Your task to perform on an android device: Open accessibility settings Image 0: 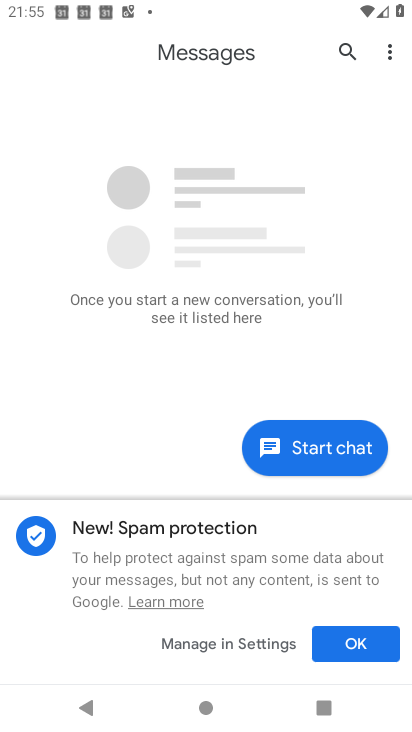
Step 0: press home button
Your task to perform on an android device: Open accessibility settings Image 1: 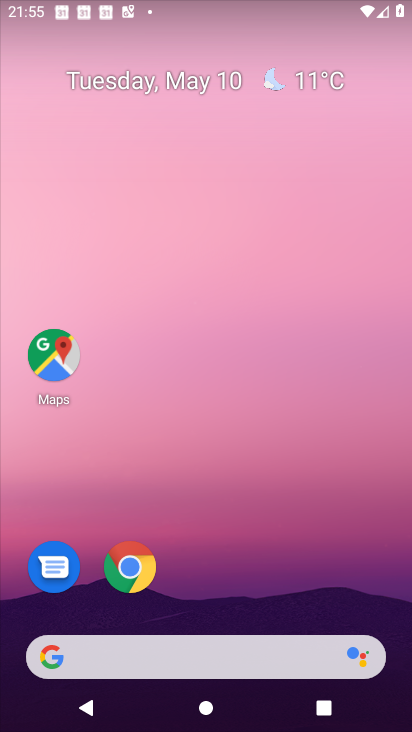
Step 1: drag from (163, 631) to (157, 235)
Your task to perform on an android device: Open accessibility settings Image 2: 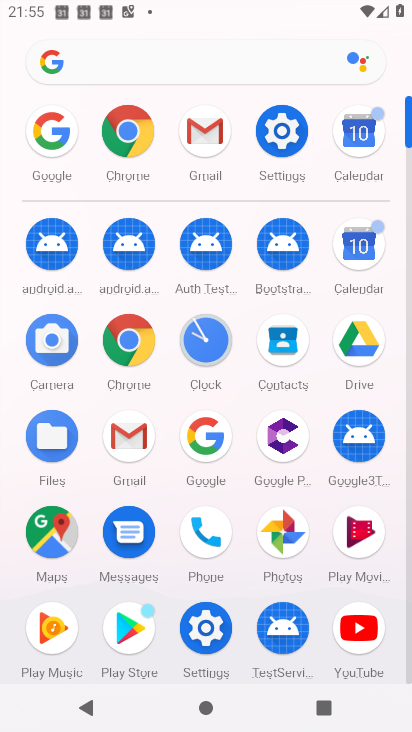
Step 2: click (209, 628)
Your task to perform on an android device: Open accessibility settings Image 3: 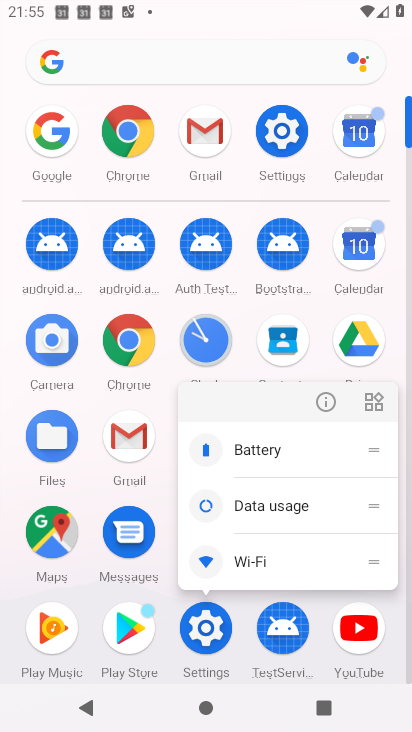
Step 3: click (209, 628)
Your task to perform on an android device: Open accessibility settings Image 4: 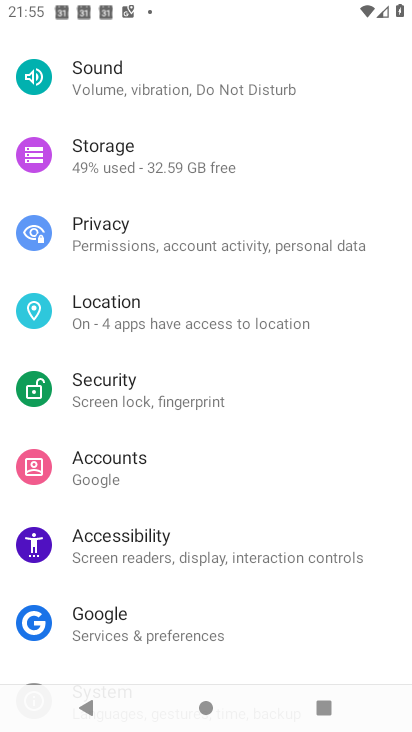
Step 4: click (123, 535)
Your task to perform on an android device: Open accessibility settings Image 5: 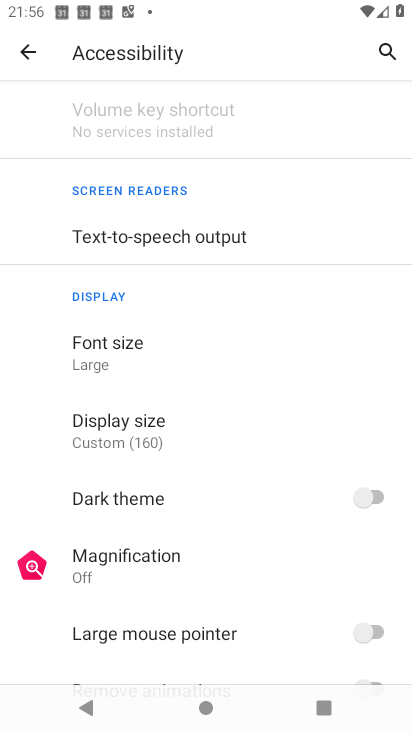
Step 5: task complete